Your task to perform on an android device: check battery use Image 0: 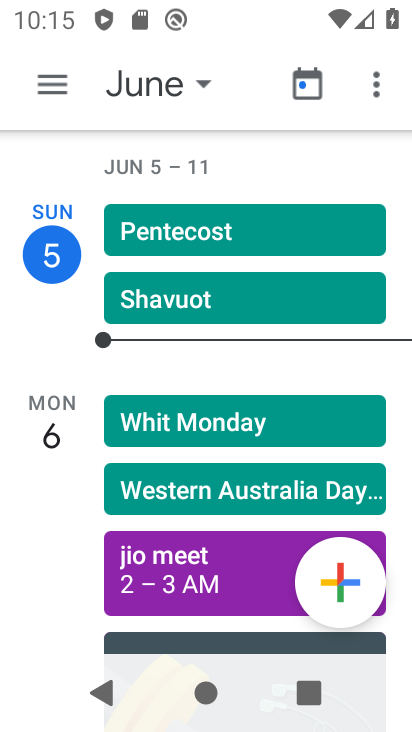
Step 0: press back button
Your task to perform on an android device: check battery use Image 1: 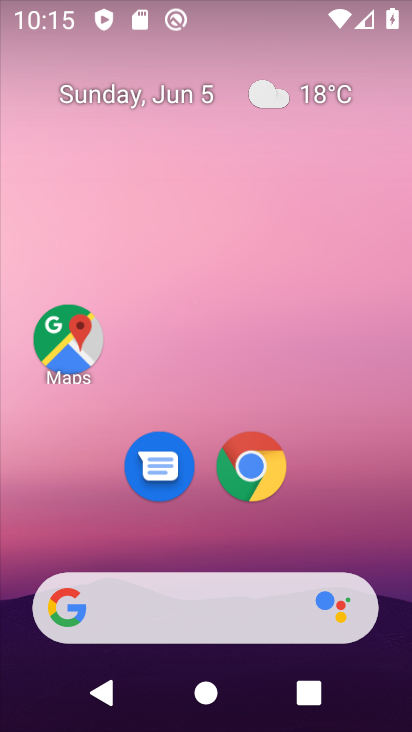
Step 1: drag from (336, 511) to (276, 200)
Your task to perform on an android device: check battery use Image 2: 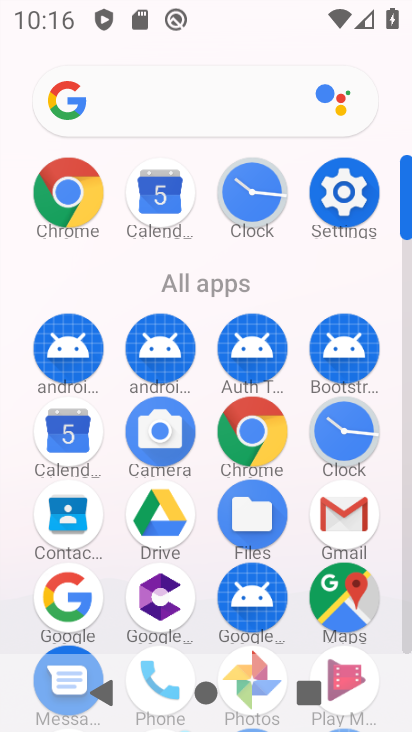
Step 2: click (346, 192)
Your task to perform on an android device: check battery use Image 3: 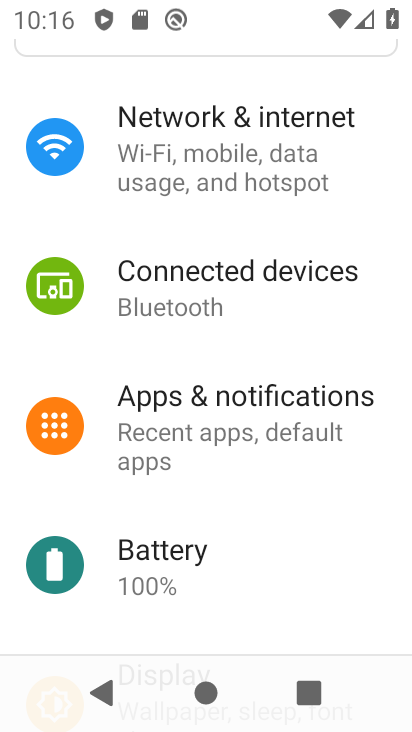
Step 3: drag from (261, 508) to (309, 406)
Your task to perform on an android device: check battery use Image 4: 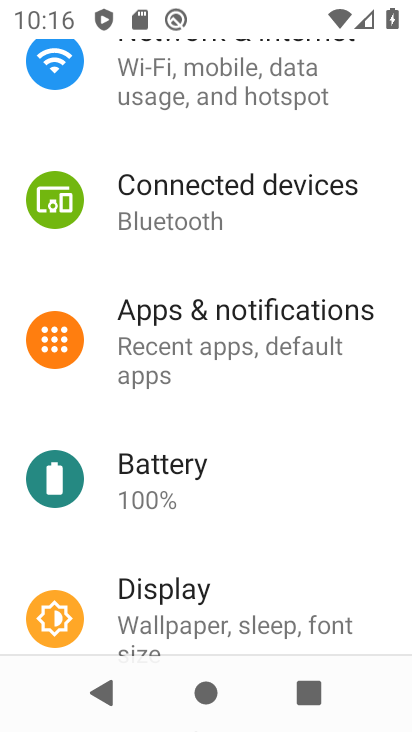
Step 4: click (210, 480)
Your task to perform on an android device: check battery use Image 5: 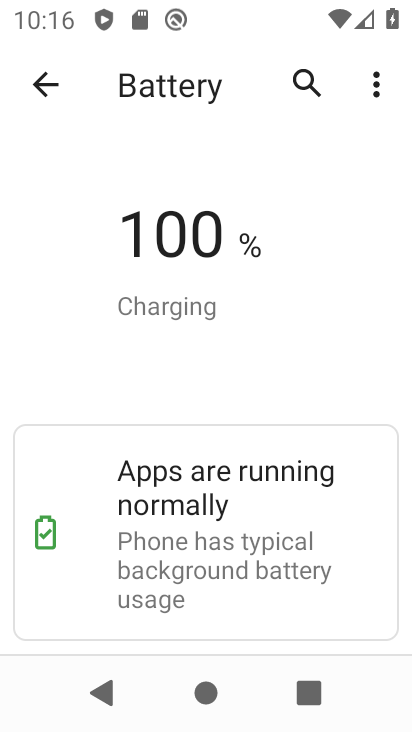
Step 5: click (382, 85)
Your task to perform on an android device: check battery use Image 6: 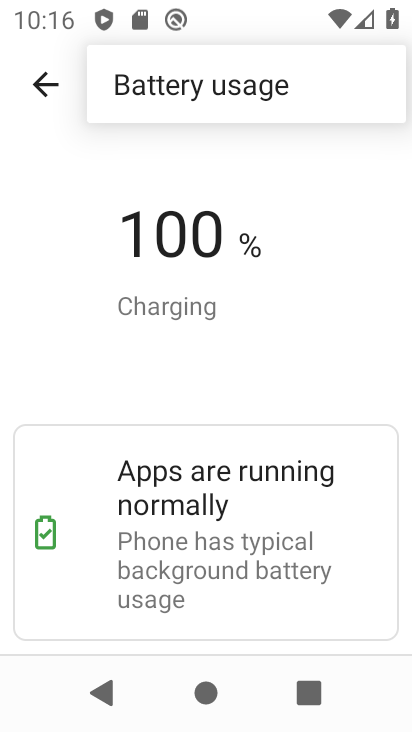
Step 6: click (236, 90)
Your task to perform on an android device: check battery use Image 7: 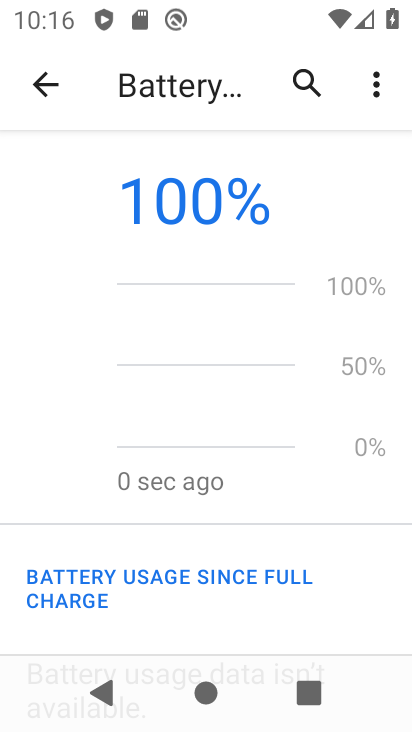
Step 7: task complete